Your task to perform on an android device: change notifications settings Image 0: 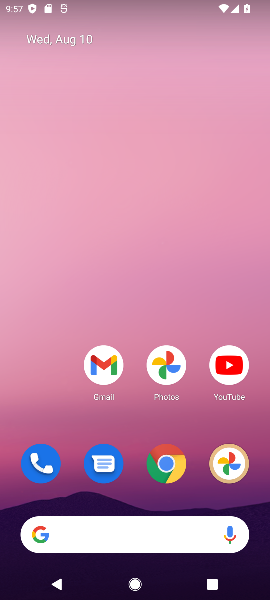
Step 0: drag from (15, 584) to (157, 179)
Your task to perform on an android device: change notifications settings Image 1: 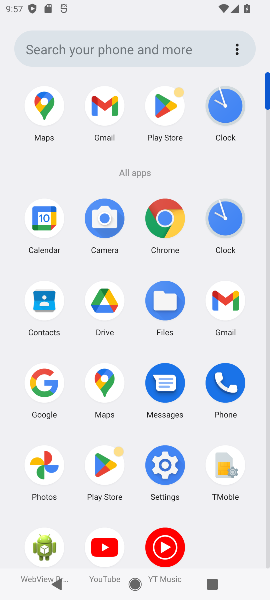
Step 1: click (159, 463)
Your task to perform on an android device: change notifications settings Image 2: 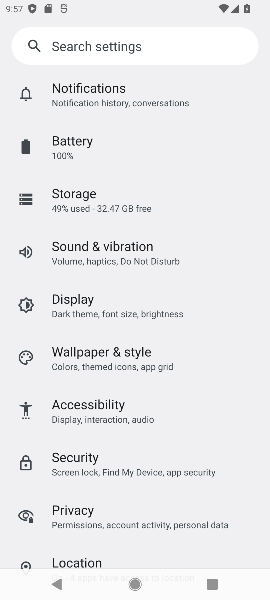
Step 2: click (96, 101)
Your task to perform on an android device: change notifications settings Image 3: 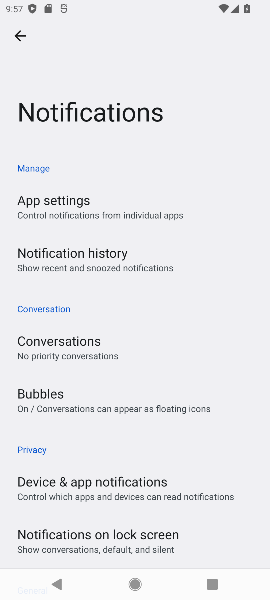
Step 3: task complete